Your task to perform on an android device: Check the news Image 0: 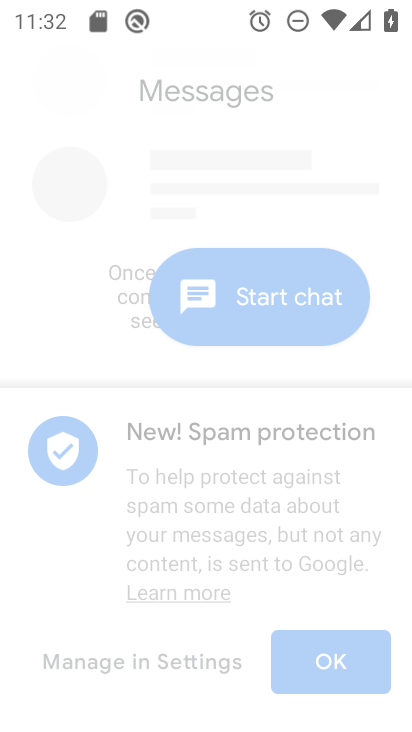
Step 0: click (259, 526)
Your task to perform on an android device: Check the news Image 1: 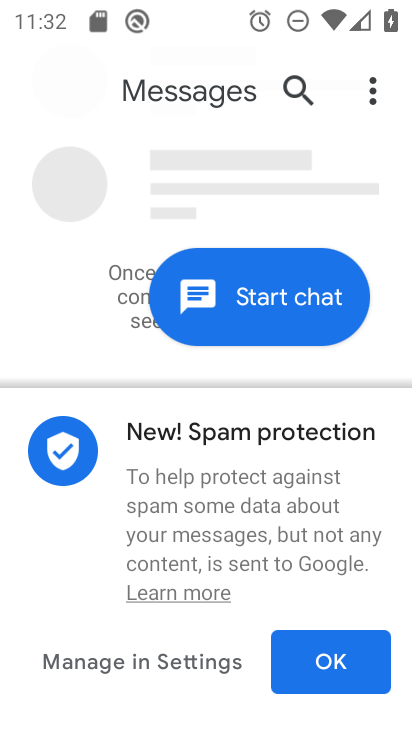
Step 1: press home button
Your task to perform on an android device: Check the news Image 2: 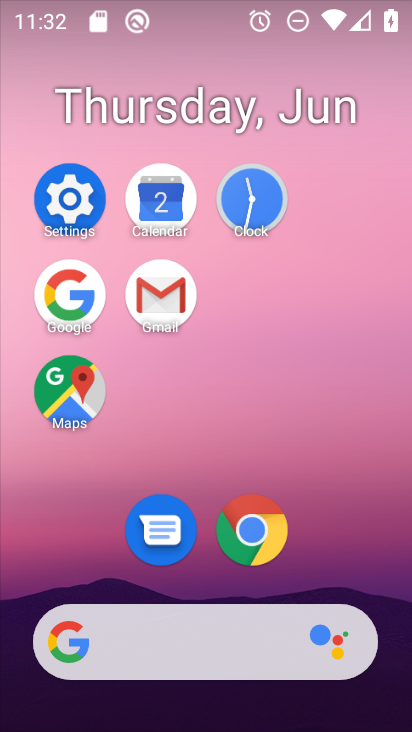
Step 2: click (69, 302)
Your task to perform on an android device: Check the news Image 3: 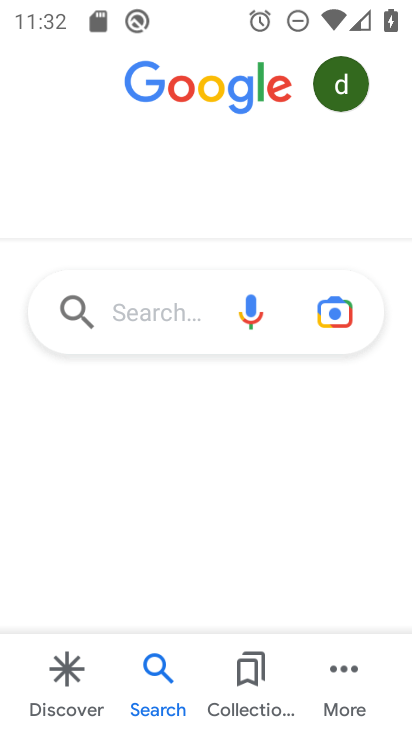
Step 3: click (186, 306)
Your task to perform on an android device: Check the news Image 4: 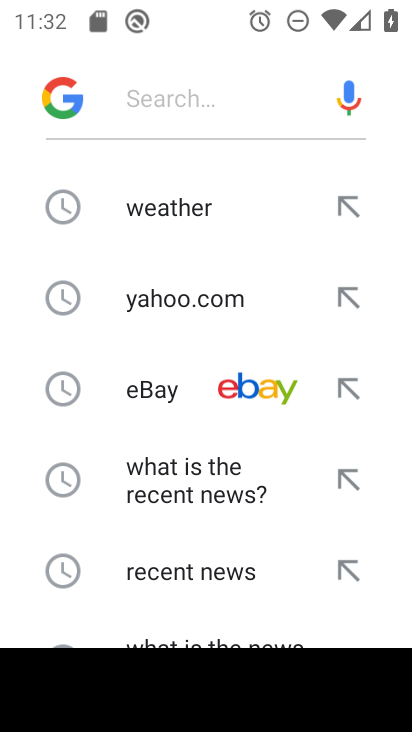
Step 4: drag from (186, 533) to (185, 209)
Your task to perform on an android device: Check the news Image 5: 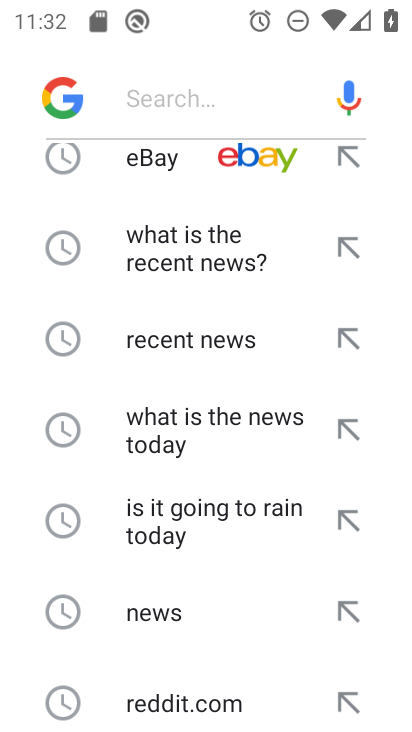
Step 5: click (163, 613)
Your task to perform on an android device: Check the news Image 6: 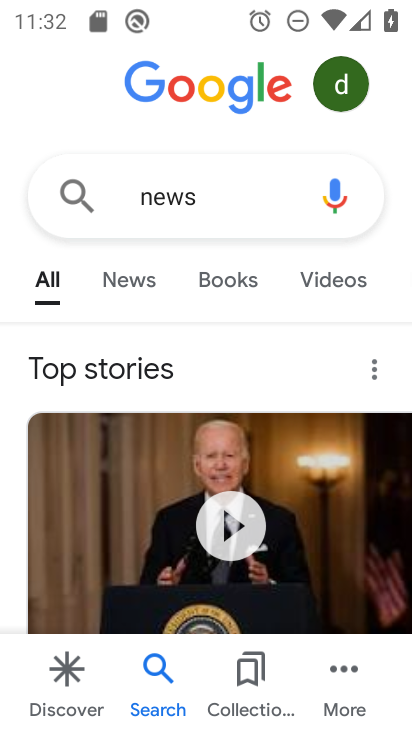
Step 6: task complete